Your task to perform on an android device: toggle show notifications on the lock screen Image 0: 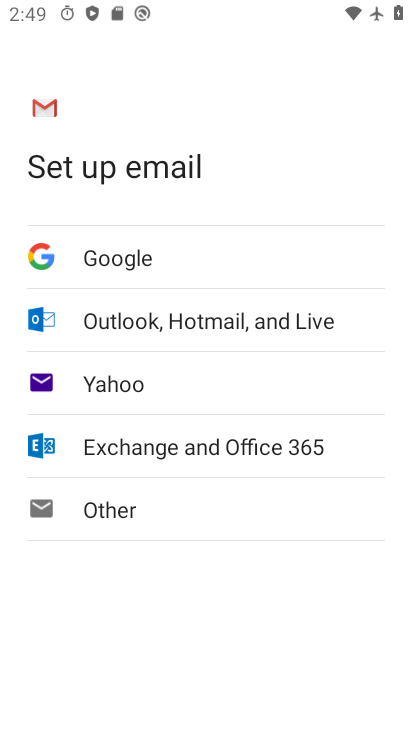
Step 0: press back button
Your task to perform on an android device: toggle show notifications on the lock screen Image 1: 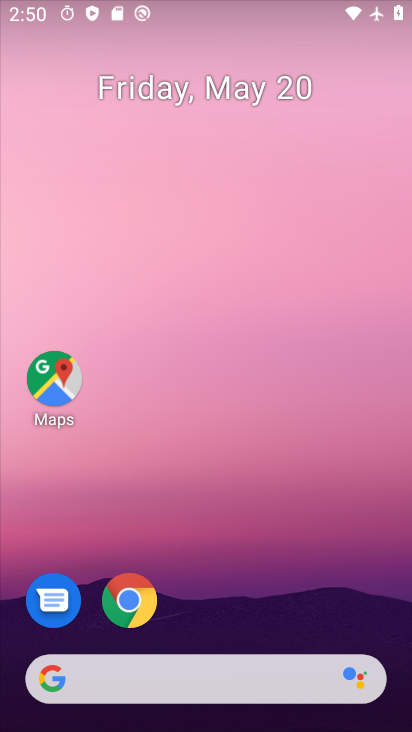
Step 1: drag from (273, 446) to (229, 33)
Your task to perform on an android device: toggle show notifications on the lock screen Image 2: 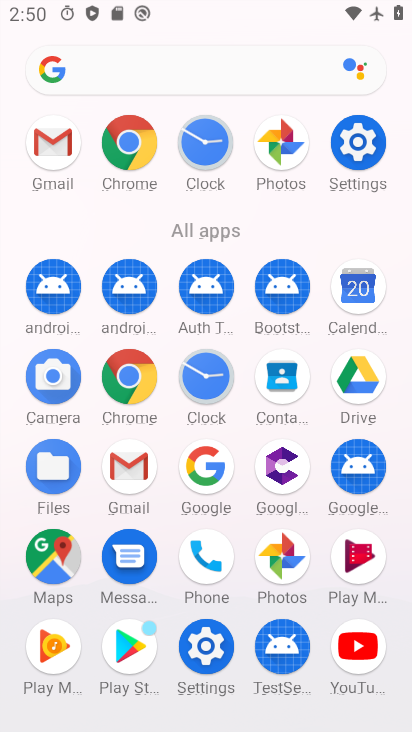
Step 2: click (206, 639)
Your task to perform on an android device: toggle show notifications on the lock screen Image 3: 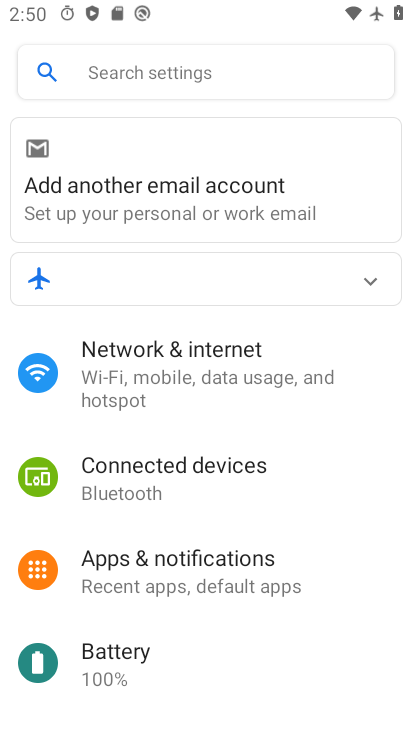
Step 3: drag from (229, 612) to (294, 241)
Your task to perform on an android device: toggle show notifications on the lock screen Image 4: 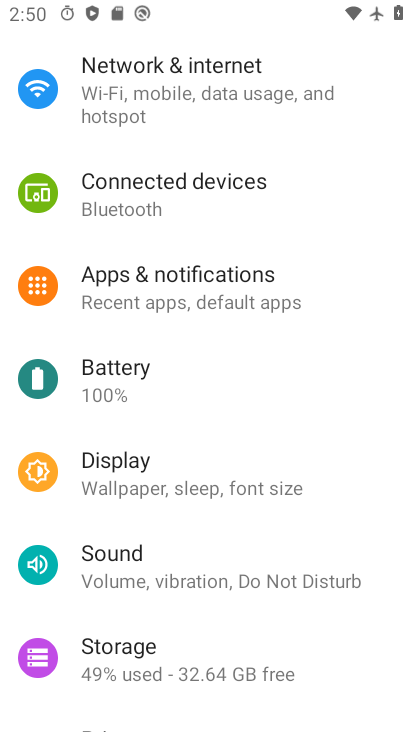
Step 4: click (201, 262)
Your task to perform on an android device: toggle show notifications on the lock screen Image 5: 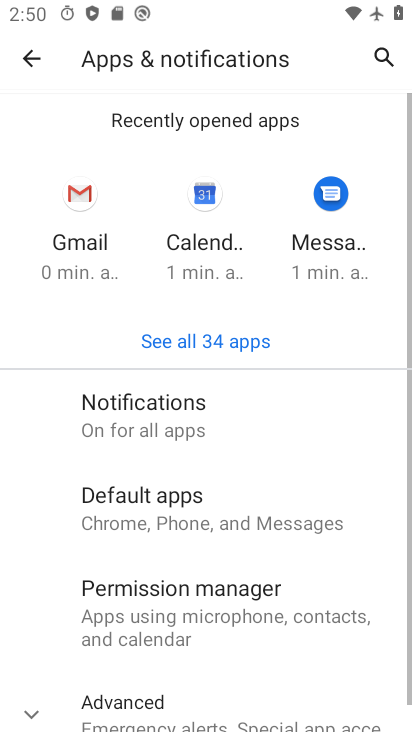
Step 5: click (33, 704)
Your task to perform on an android device: toggle show notifications on the lock screen Image 6: 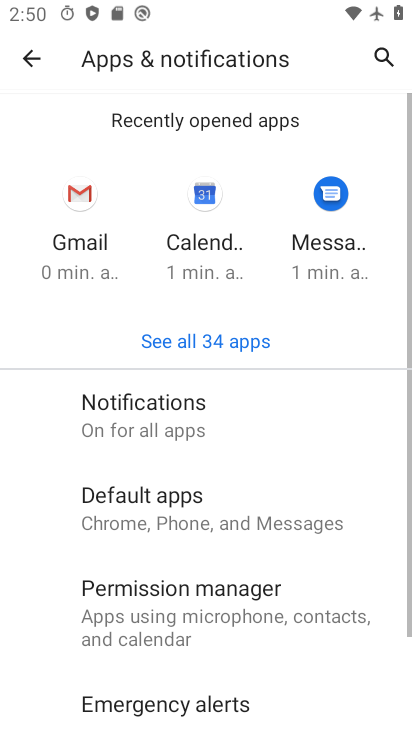
Step 6: click (219, 424)
Your task to perform on an android device: toggle show notifications on the lock screen Image 7: 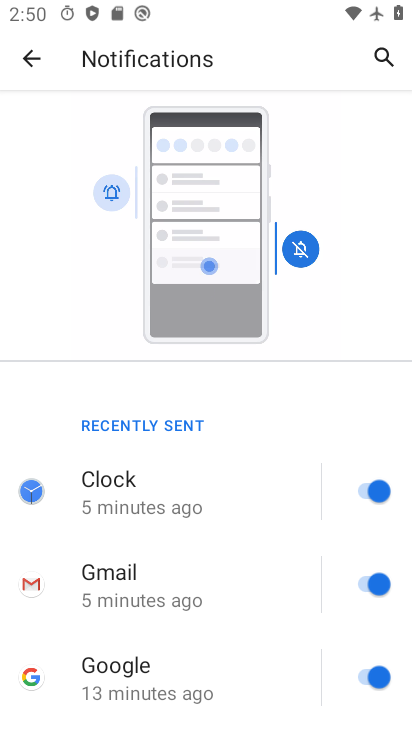
Step 7: drag from (229, 456) to (270, 80)
Your task to perform on an android device: toggle show notifications on the lock screen Image 8: 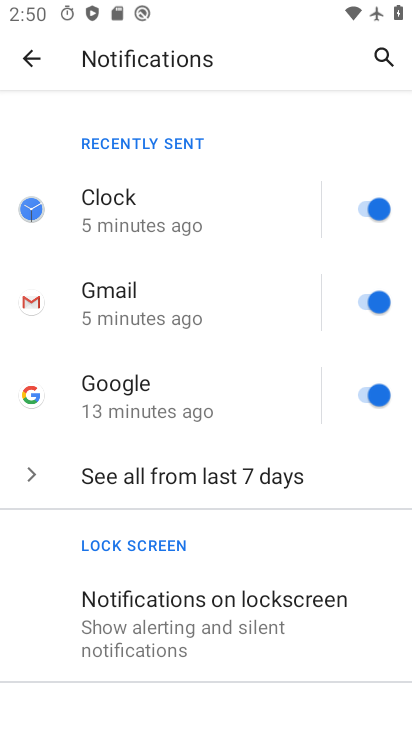
Step 8: drag from (236, 534) to (261, 134)
Your task to perform on an android device: toggle show notifications on the lock screen Image 9: 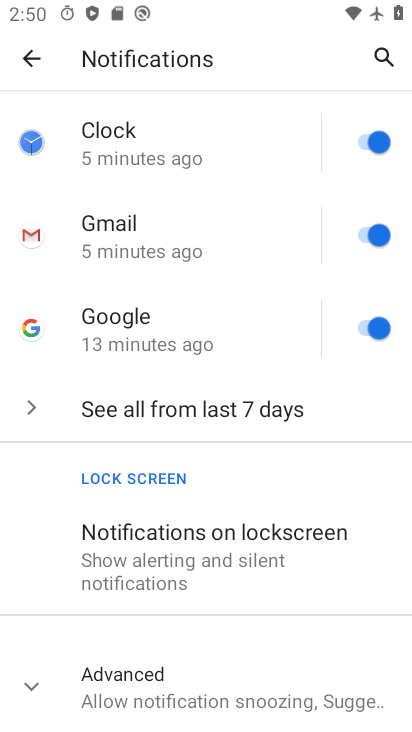
Step 9: click (258, 540)
Your task to perform on an android device: toggle show notifications on the lock screen Image 10: 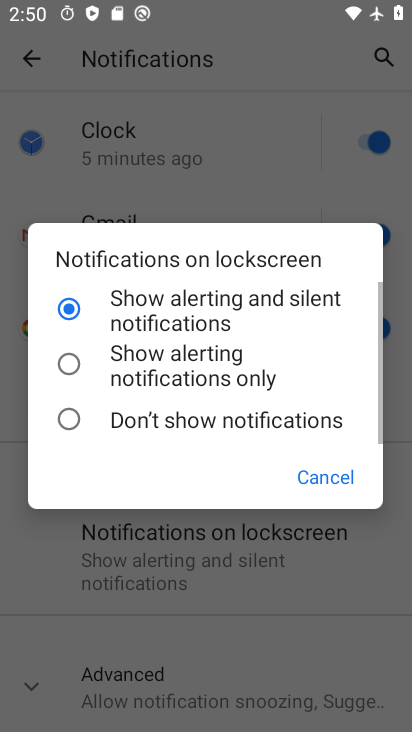
Step 10: click (174, 366)
Your task to perform on an android device: toggle show notifications on the lock screen Image 11: 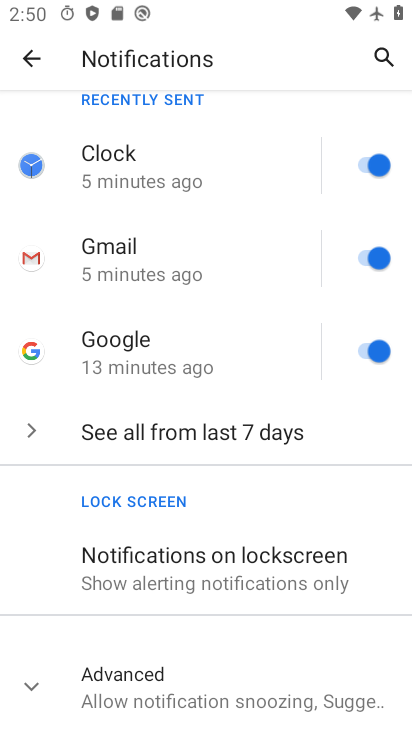
Step 11: task complete